Your task to perform on an android device: Open Android settings Image 0: 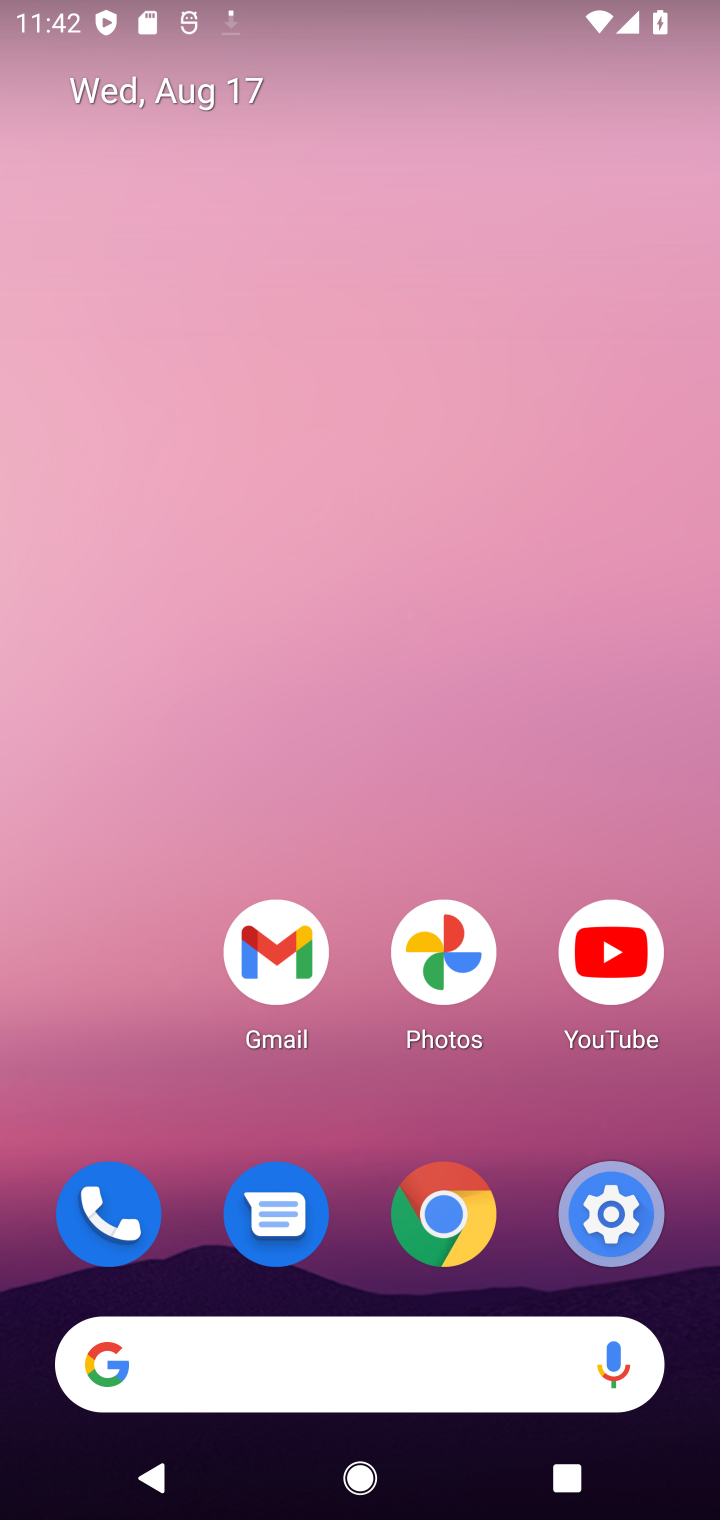
Step 0: click (586, 1190)
Your task to perform on an android device: Open Android settings Image 1: 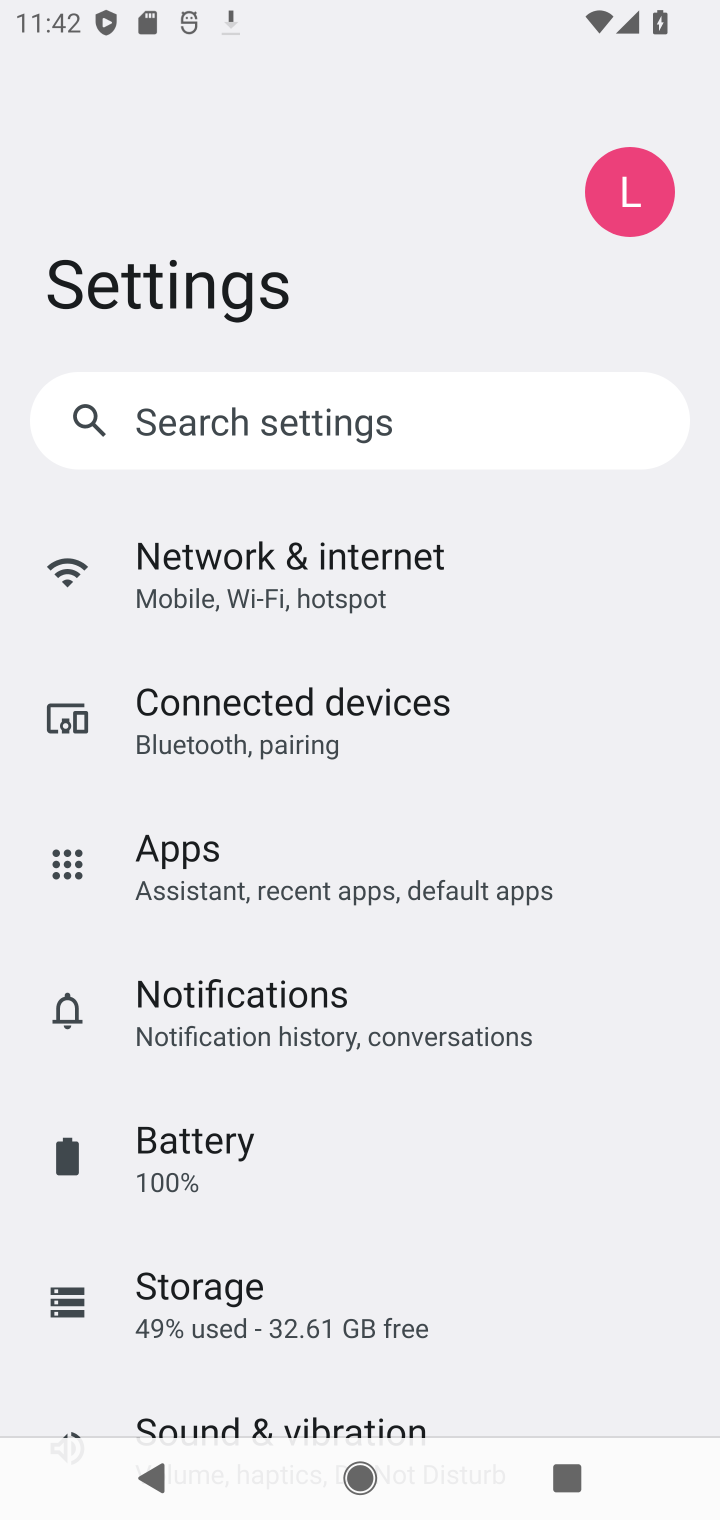
Step 1: drag from (315, 1331) to (466, 1)
Your task to perform on an android device: Open Android settings Image 2: 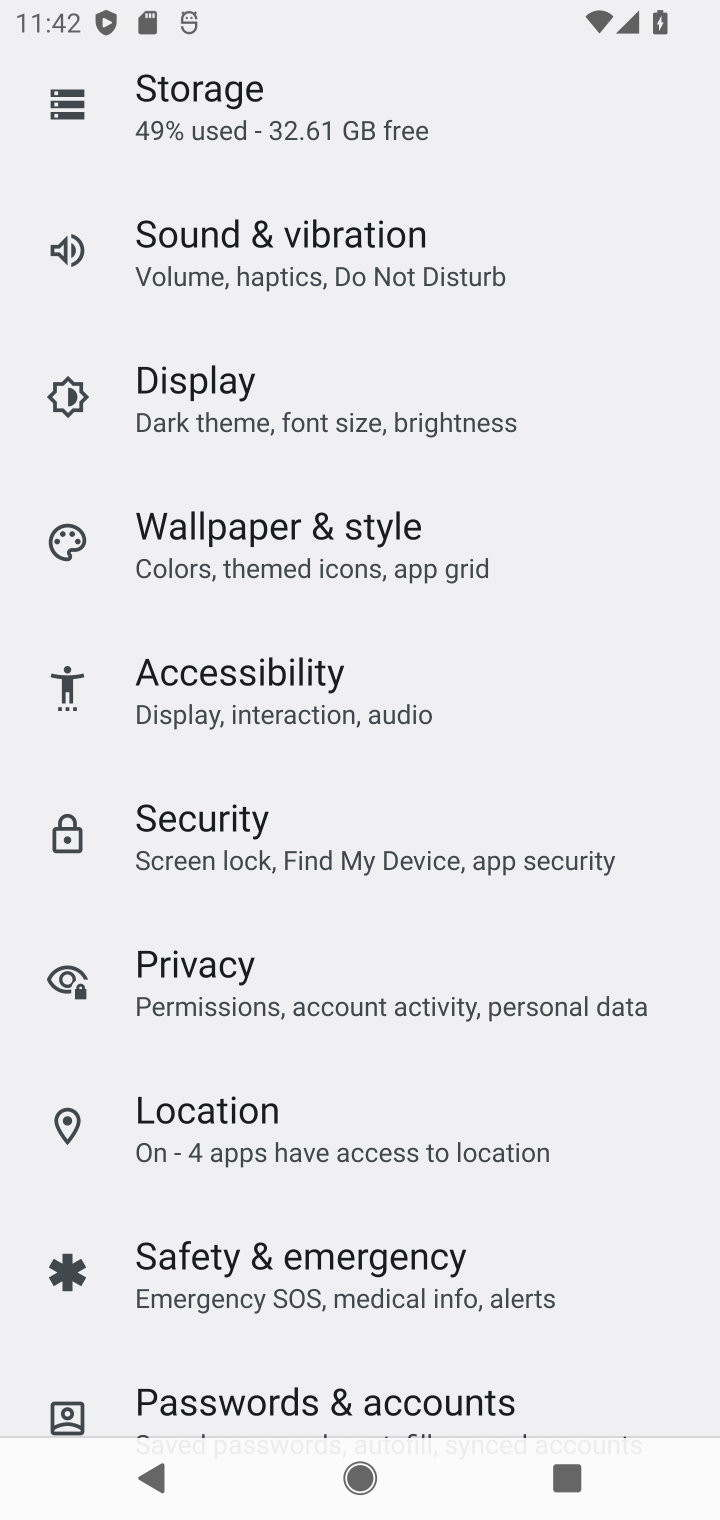
Step 2: drag from (284, 1327) to (605, 105)
Your task to perform on an android device: Open Android settings Image 3: 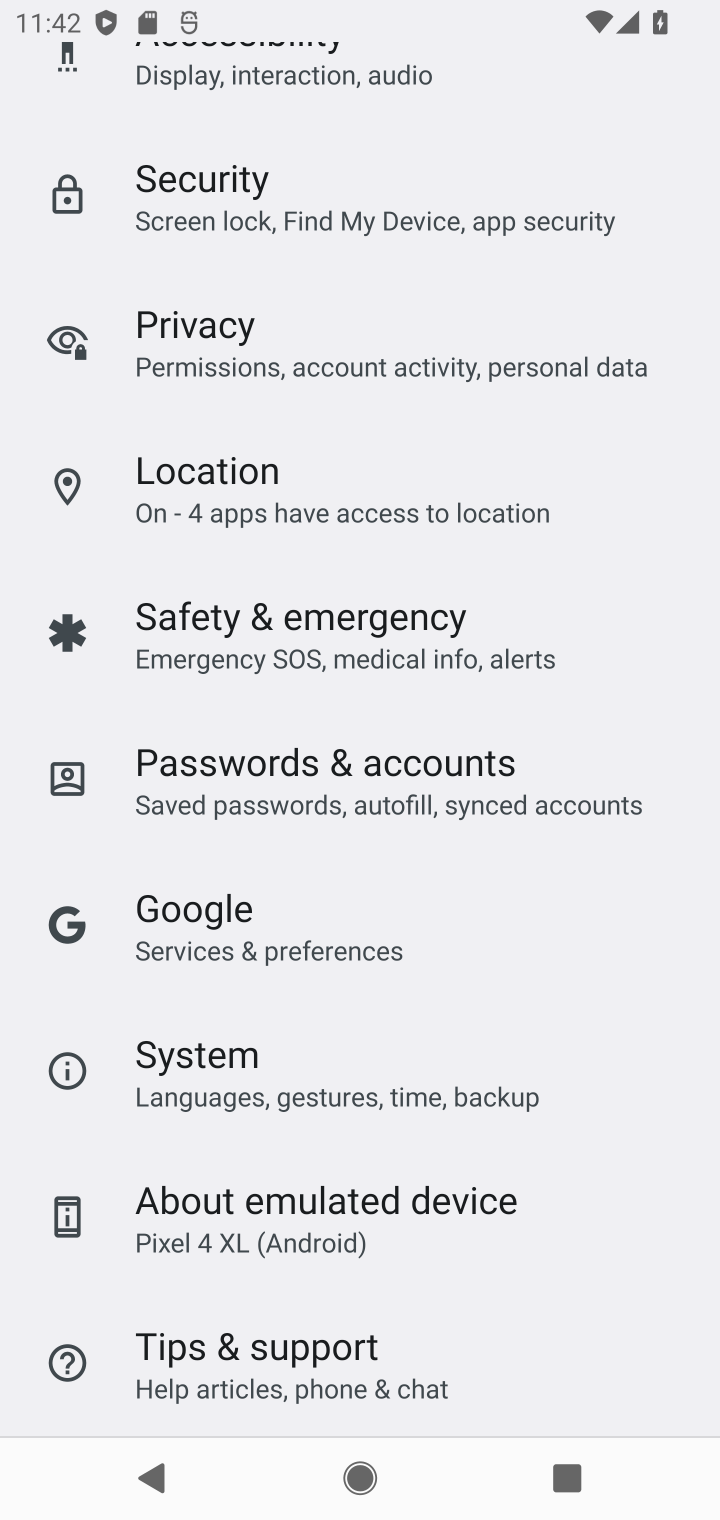
Step 3: click (264, 1196)
Your task to perform on an android device: Open Android settings Image 4: 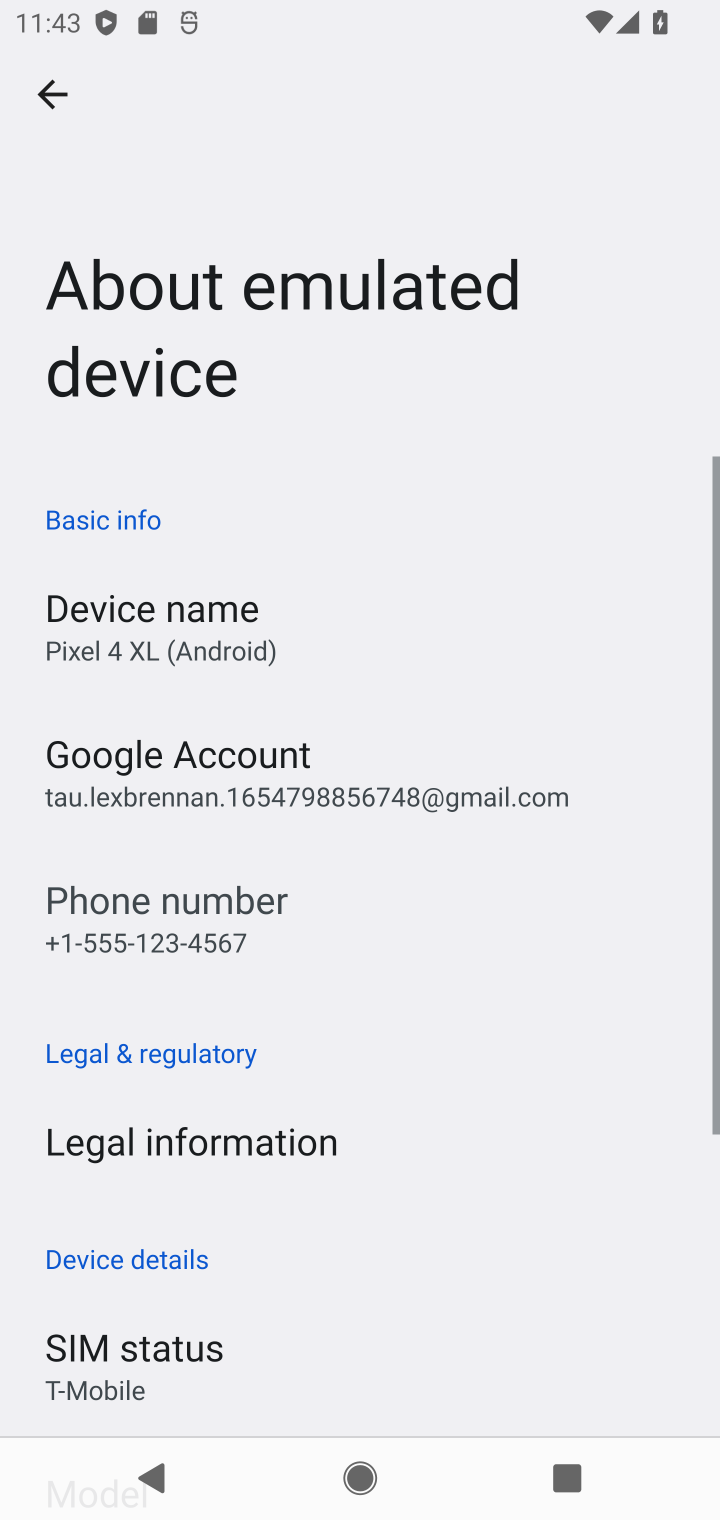
Step 4: task complete